Your task to perform on an android device: Show me productivity apps on the Play Store Image 0: 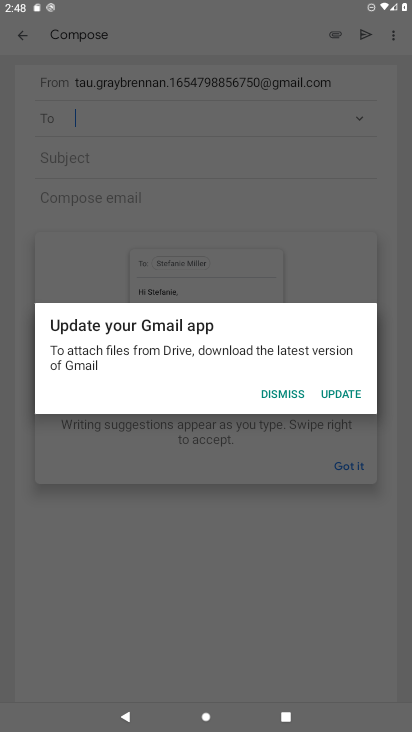
Step 0: press home button
Your task to perform on an android device: Show me productivity apps on the Play Store Image 1: 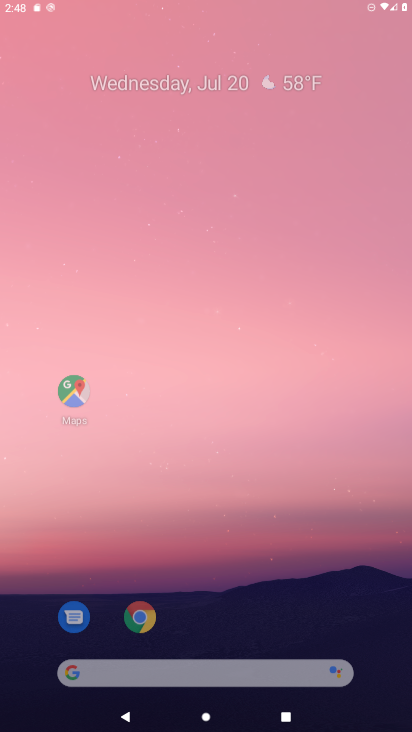
Step 1: drag from (254, 633) to (176, 6)
Your task to perform on an android device: Show me productivity apps on the Play Store Image 2: 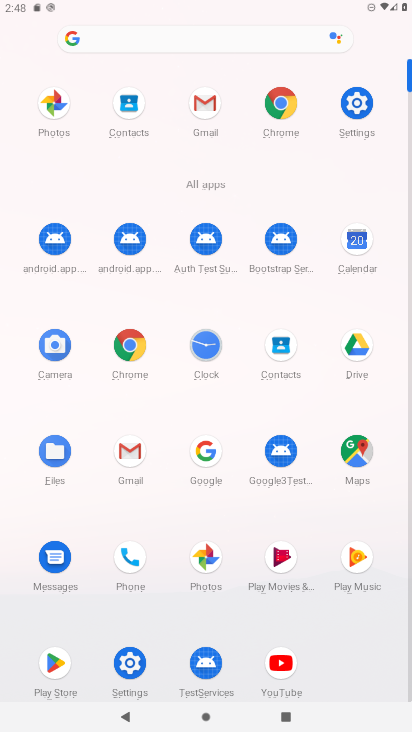
Step 2: click (43, 670)
Your task to perform on an android device: Show me productivity apps on the Play Store Image 3: 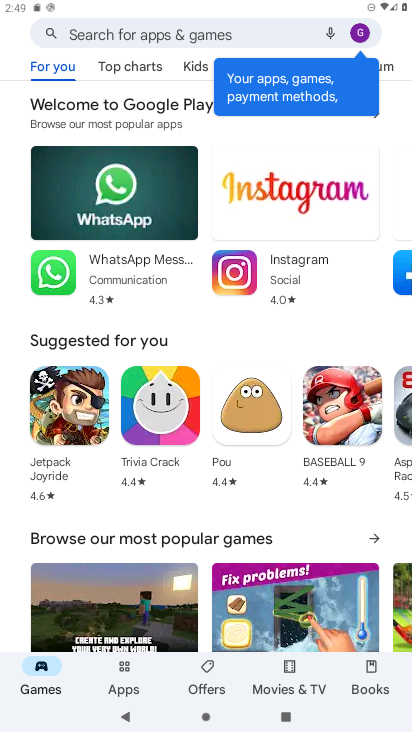
Step 3: click (194, 31)
Your task to perform on an android device: Show me productivity apps on the Play Store Image 4: 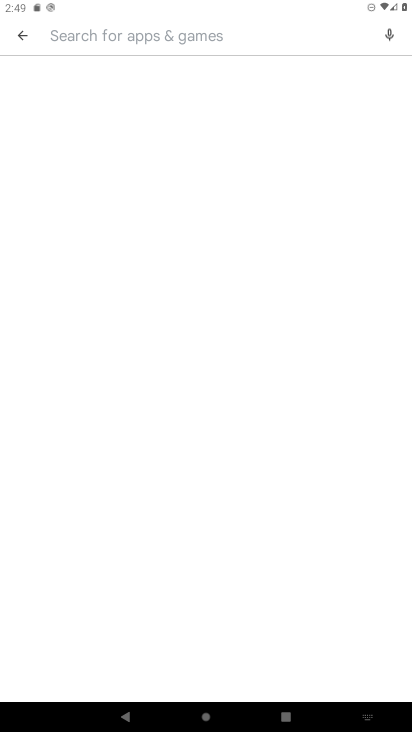
Step 4: type "productivity apps "
Your task to perform on an android device: Show me productivity apps on the Play Store Image 5: 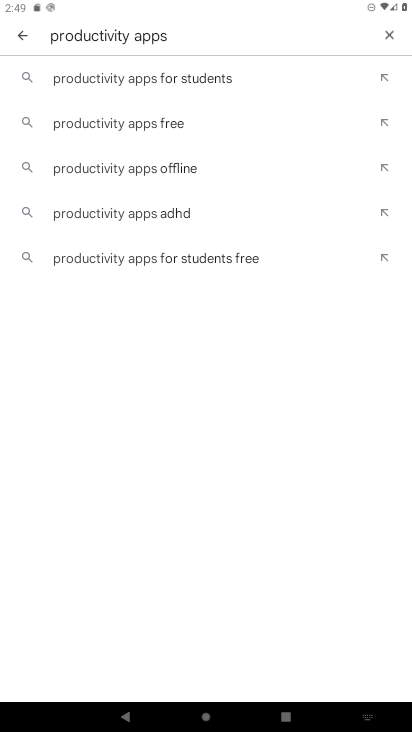
Step 5: click (153, 80)
Your task to perform on an android device: Show me productivity apps on the Play Store Image 6: 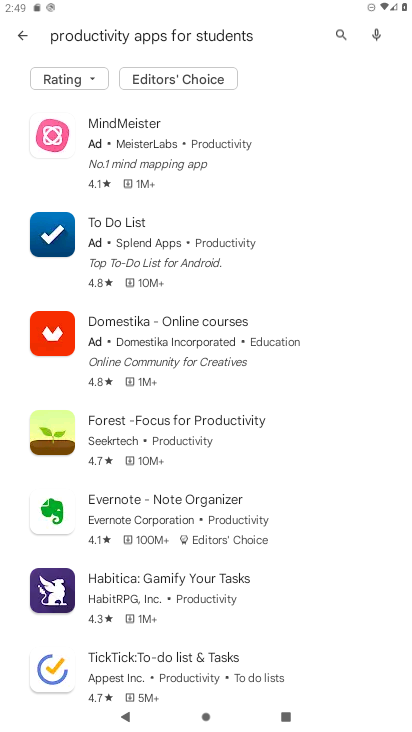
Step 6: task complete